Your task to perform on an android device: find photos in the google photos app Image 0: 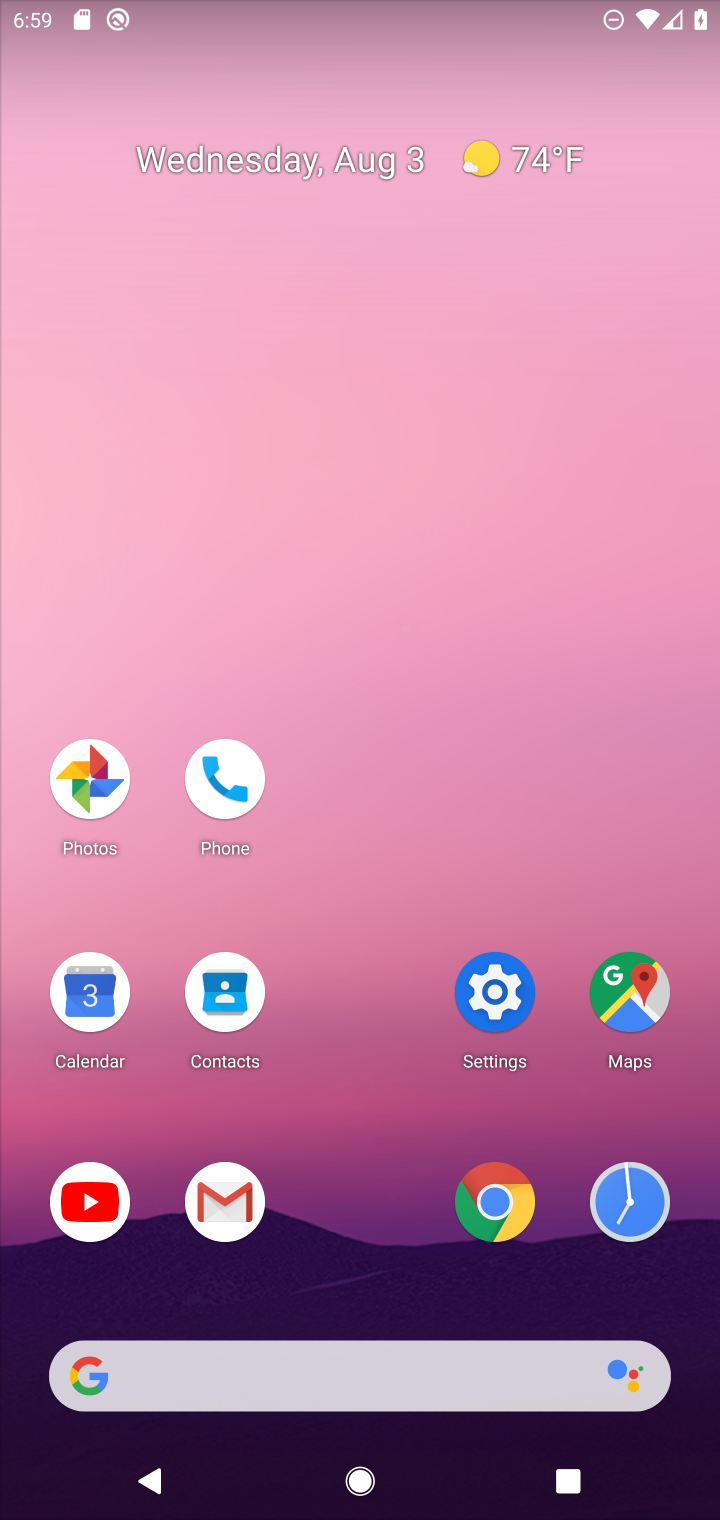
Step 0: click (93, 777)
Your task to perform on an android device: find photos in the google photos app Image 1: 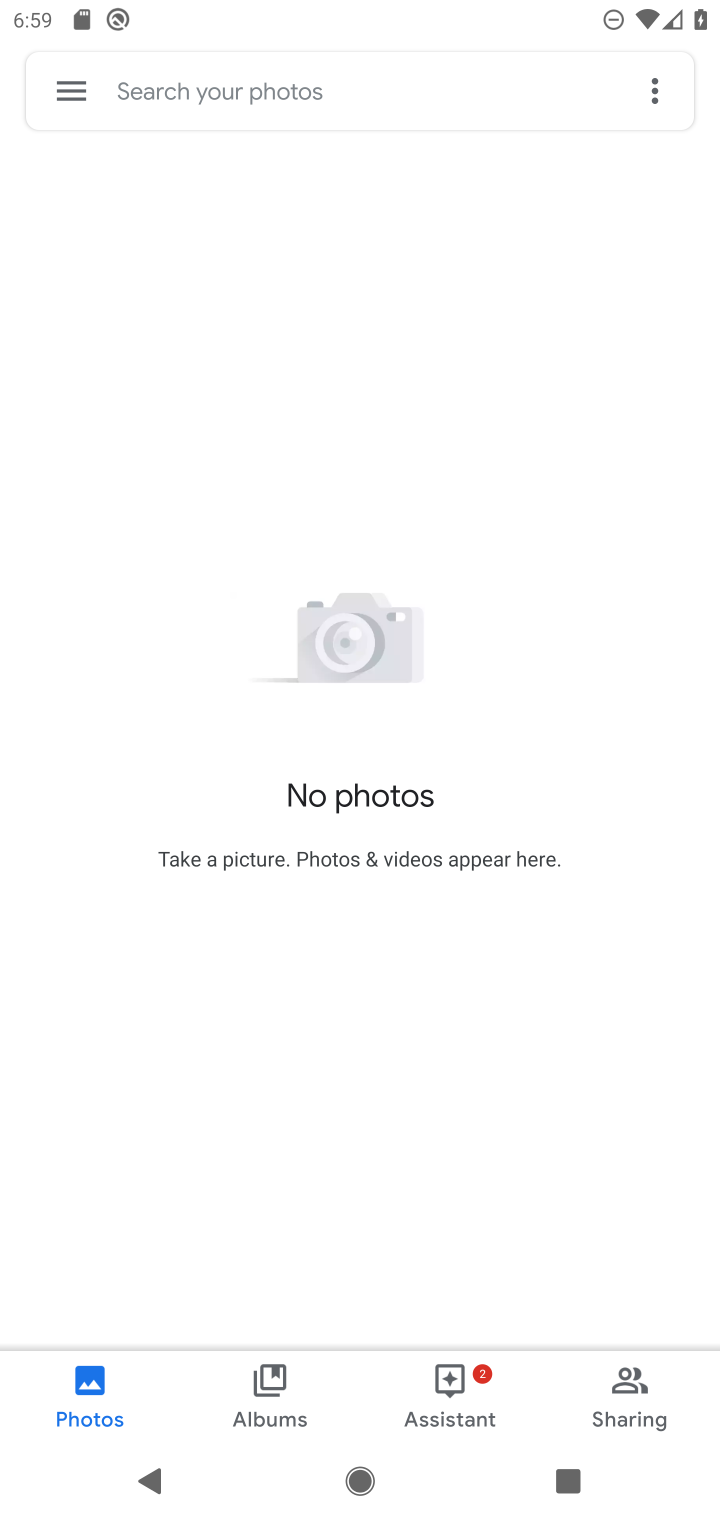
Step 1: click (229, 90)
Your task to perform on an android device: find photos in the google photos app Image 2: 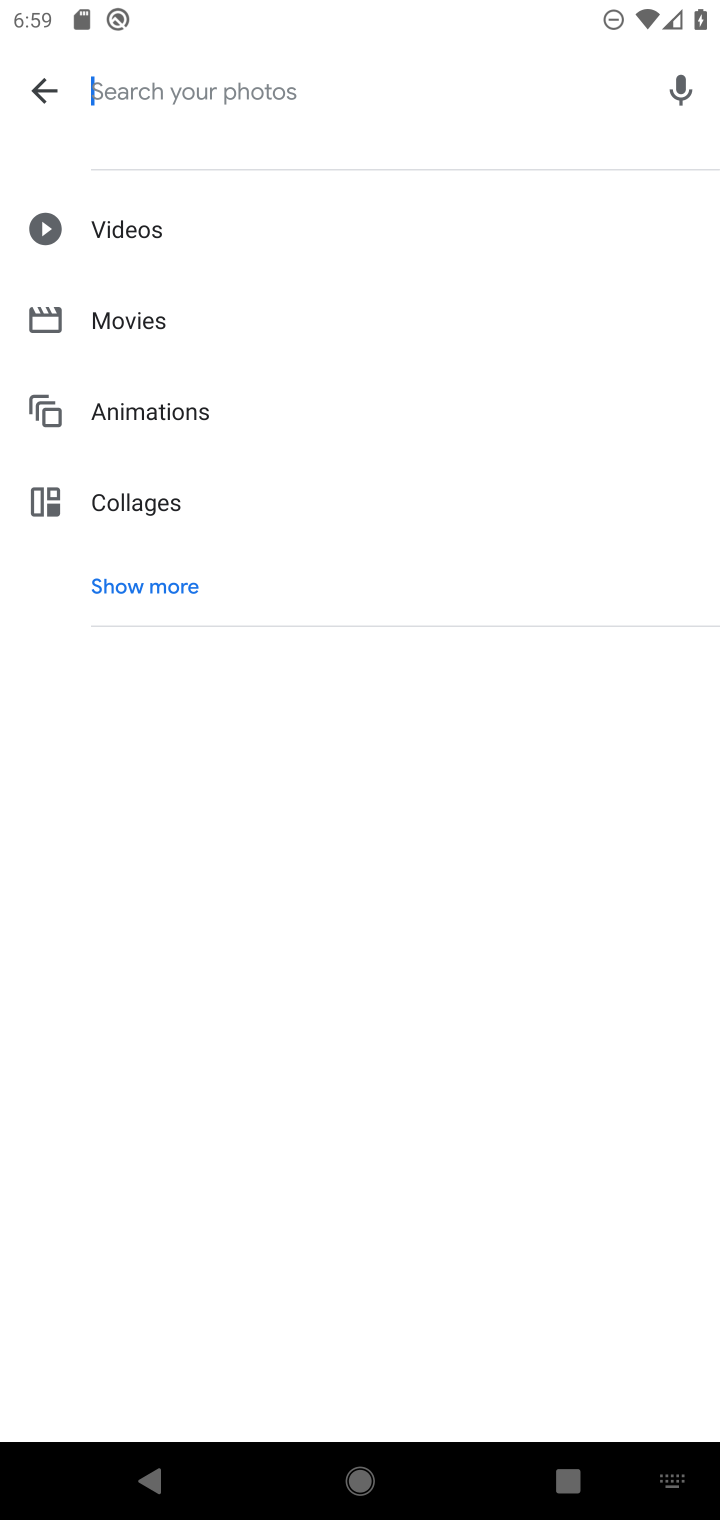
Step 2: task complete